Your task to perform on an android device: toggle sleep mode Image 0: 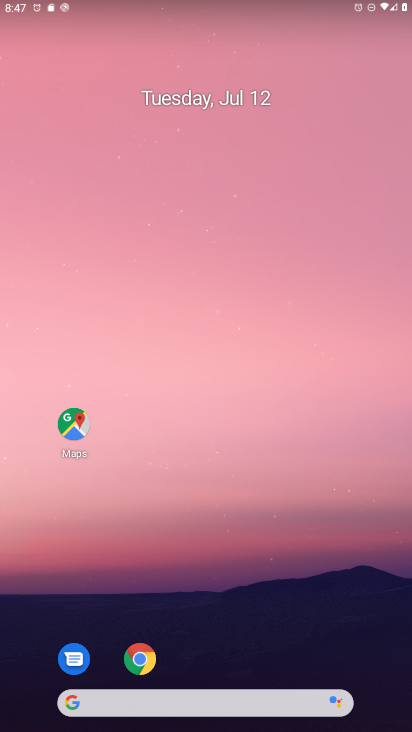
Step 0: drag from (172, 703) to (180, 105)
Your task to perform on an android device: toggle sleep mode Image 1: 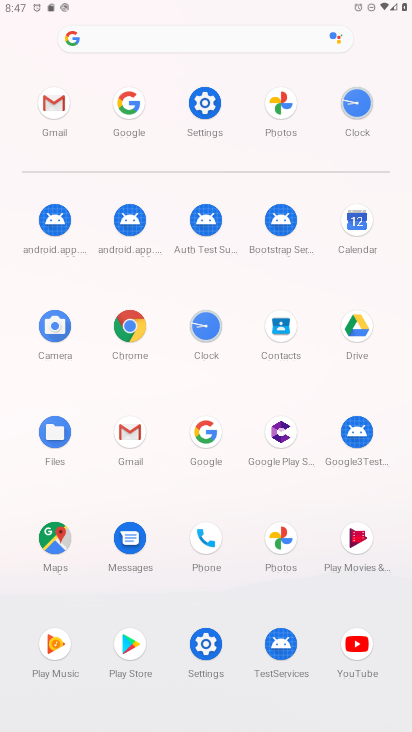
Step 1: click (205, 100)
Your task to perform on an android device: toggle sleep mode Image 2: 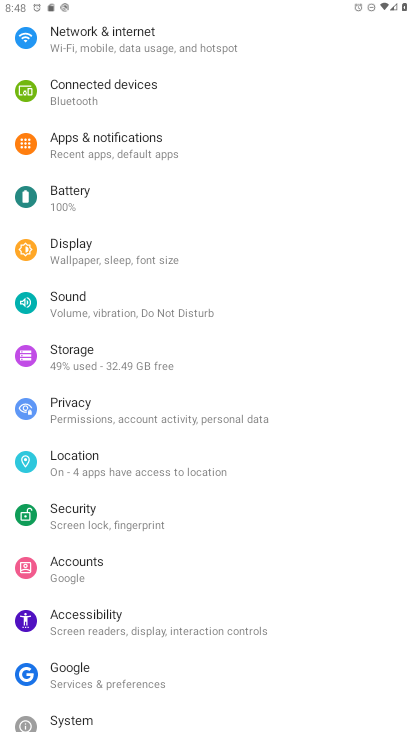
Step 2: click (134, 256)
Your task to perform on an android device: toggle sleep mode Image 3: 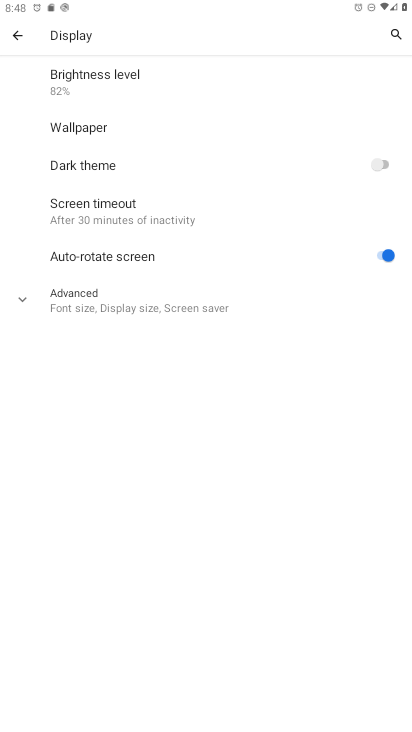
Step 3: click (115, 303)
Your task to perform on an android device: toggle sleep mode Image 4: 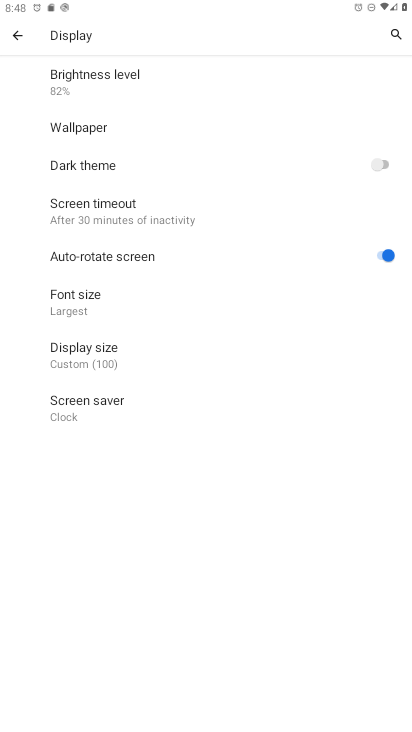
Step 4: click (76, 402)
Your task to perform on an android device: toggle sleep mode Image 5: 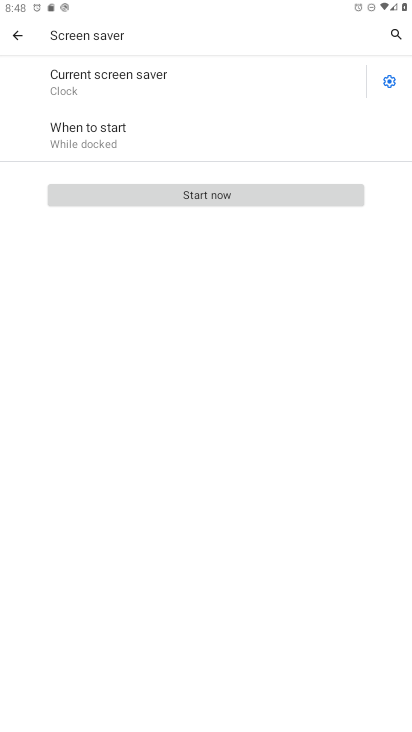
Step 5: click (393, 85)
Your task to perform on an android device: toggle sleep mode Image 6: 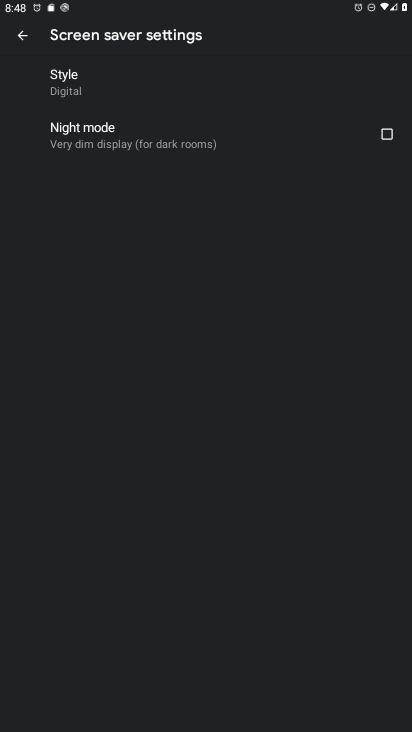
Step 6: click (387, 139)
Your task to perform on an android device: toggle sleep mode Image 7: 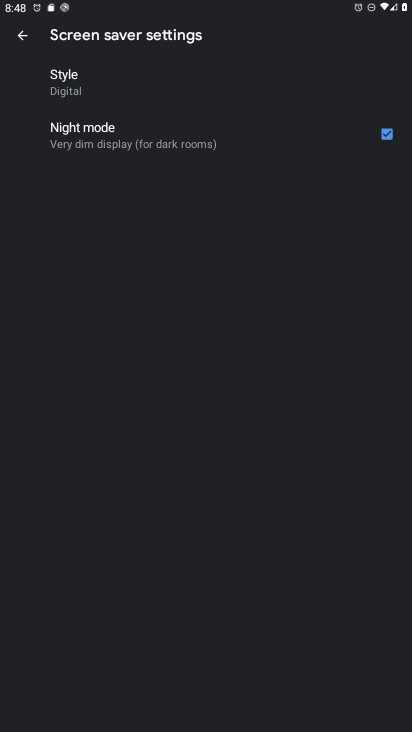
Step 7: click (28, 33)
Your task to perform on an android device: toggle sleep mode Image 8: 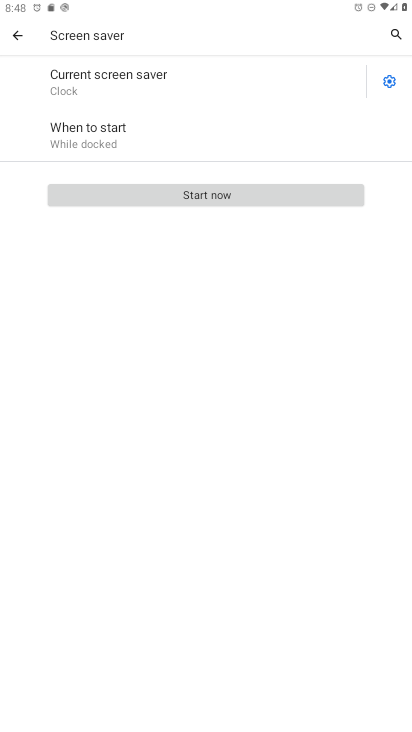
Step 8: task complete